Your task to perform on an android device: change notification settings in the gmail app Image 0: 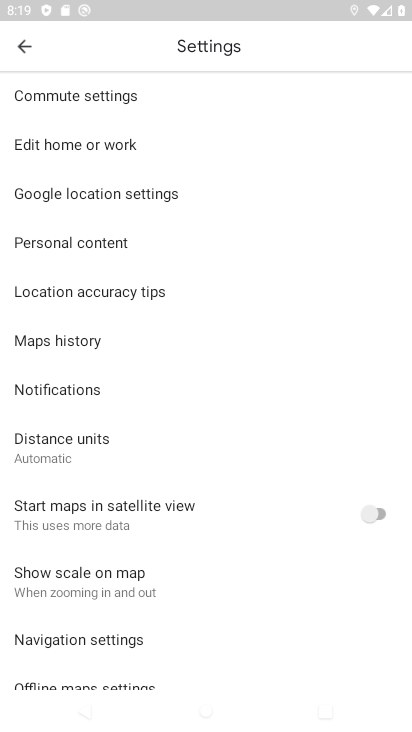
Step 0: drag from (283, 658) to (259, 21)
Your task to perform on an android device: change notification settings in the gmail app Image 1: 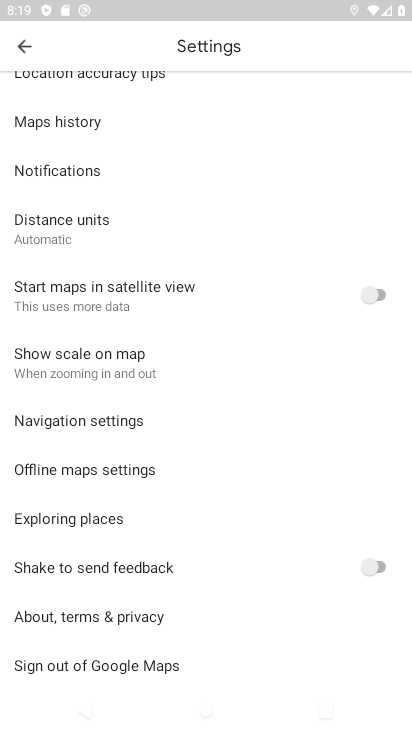
Step 1: press home button
Your task to perform on an android device: change notification settings in the gmail app Image 2: 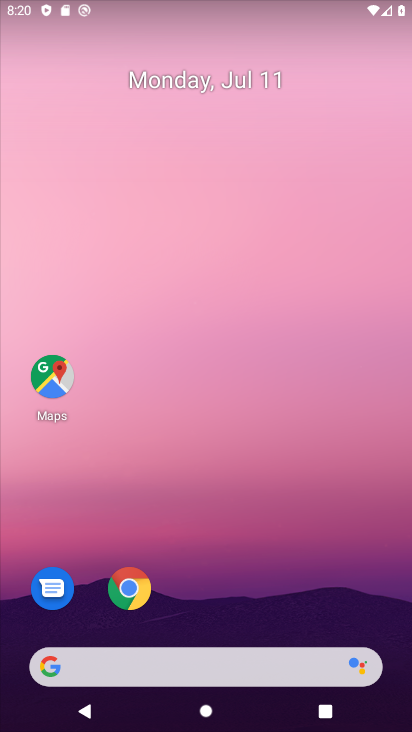
Step 2: drag from (257, 709) to (313, 15)
Your task to perform on an android device: change notification settings in the gmail app Image 3: 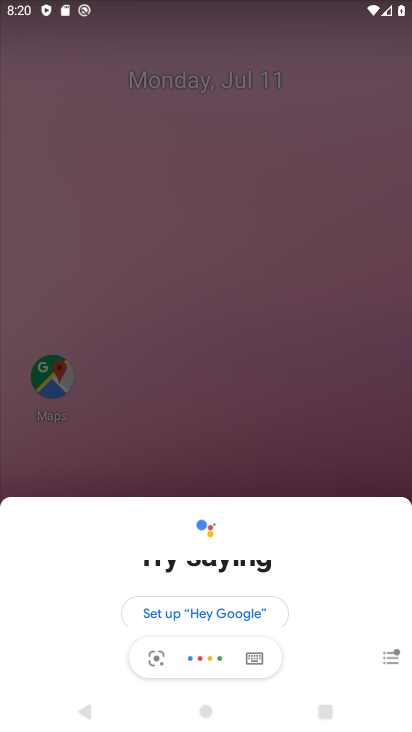
Step 3: drag from (257, 711) to (334, 11)
Your task to perform on an android device: change notification settings in the gmail app Image 4: 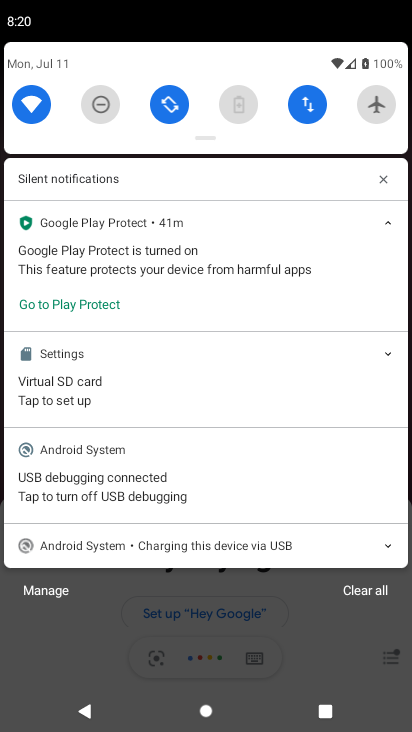
Step 4: press home button
Your task to perform on an android device: change notification settings in the gmail app Image 5: 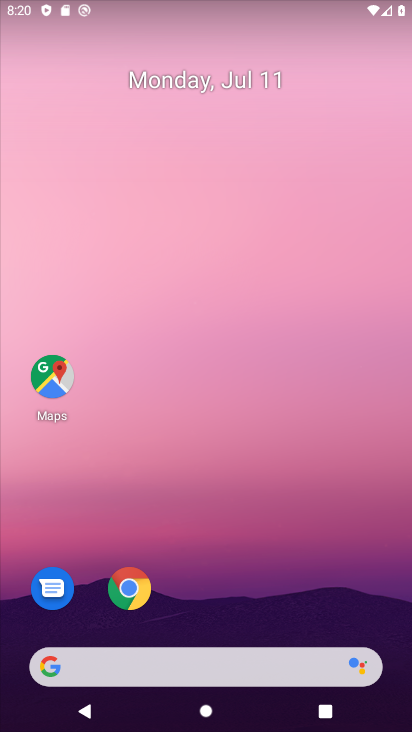
Step 5: drag from (137, 670) to (321, 6)
Your task to perform on an android device: change notification settings in the gmail app Image 6: 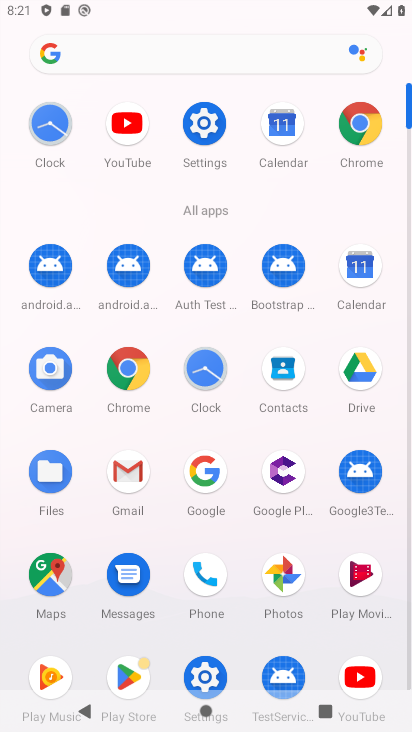
Step 6: click (112, 464)
Your task to perform on an android device: change notification settings in the gmail app Image 7: 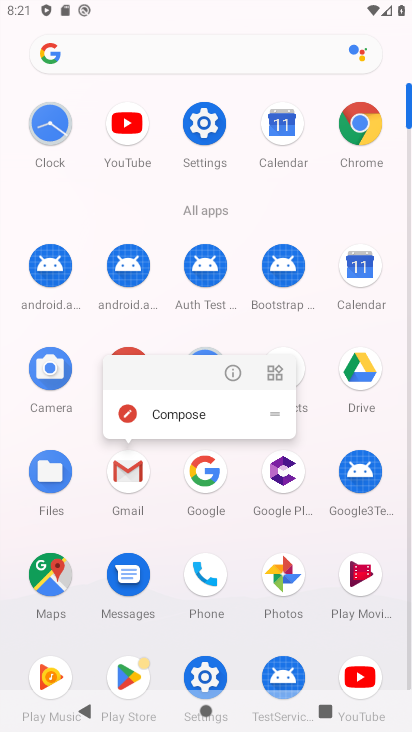
Step 7: click (230, 370)
Your task to perform on an android device: change notification settings in the gmail app Image 8: 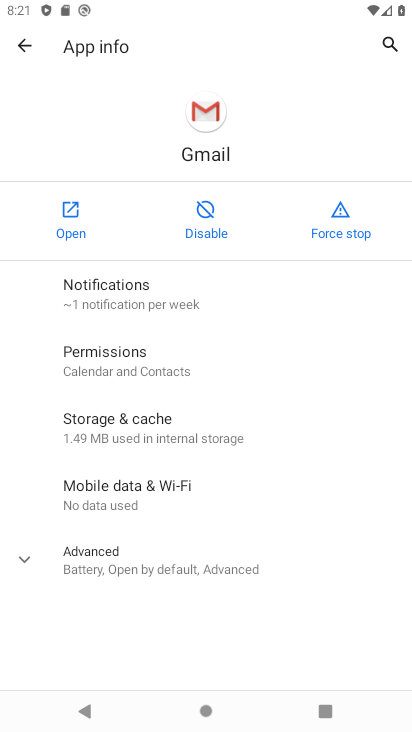
Step 8: click (115, 308)
Your task to perform on an android device: change notification settings in the gmail app Image 9: 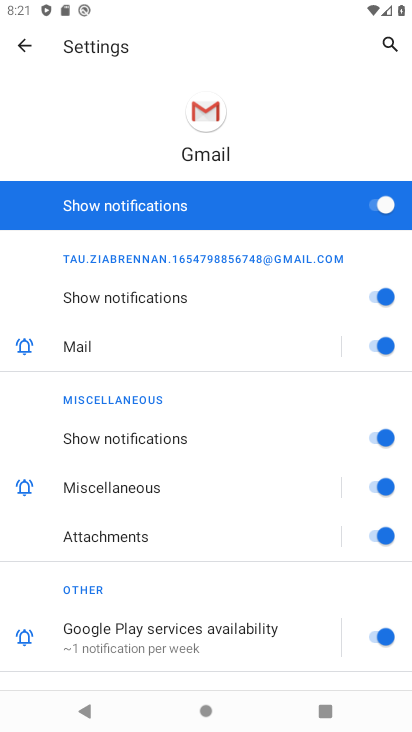
Step 9: click (381, 204)
Your task to perform on an android device: change notification settings in the gmail app Image 10: 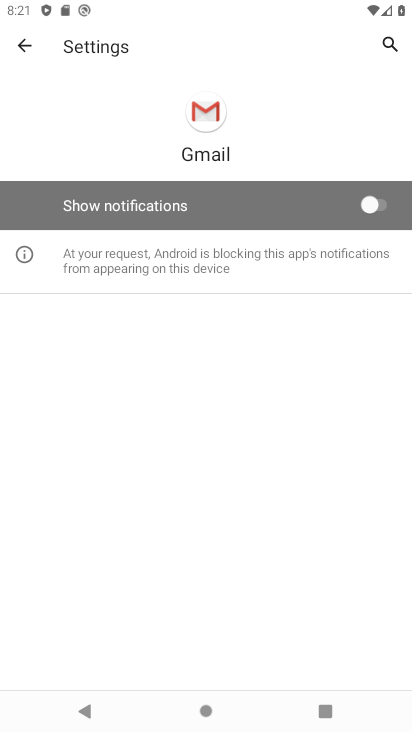
Step 10: task complete